Your task to perform on an android device: Play the last video I watched on Youtube Image 0: 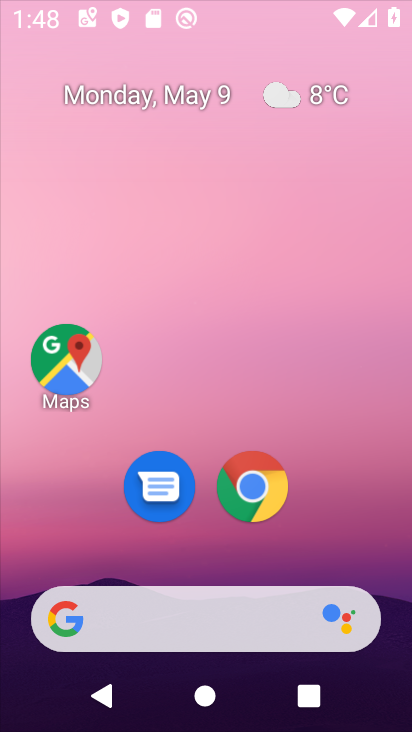
Step 0: click (293, 97)
Your task to perform on an android device: Play the last video I watched on Youtube Image 1: 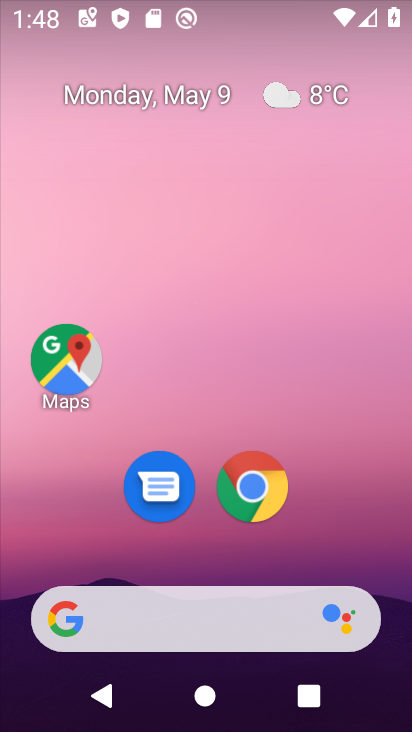
Step 1: drag from (328, 498) to (351, 170)
Your task to perform on an android device: Play the last video I watched on Youtube Image 2: 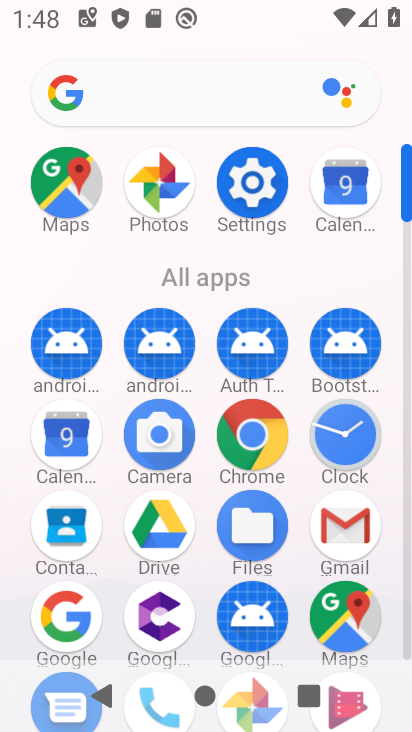
Step 2: drag from (191, 646) to (328, 266)
Your task to perform on an android device: Play the last video I watched on Youtube Image 3: 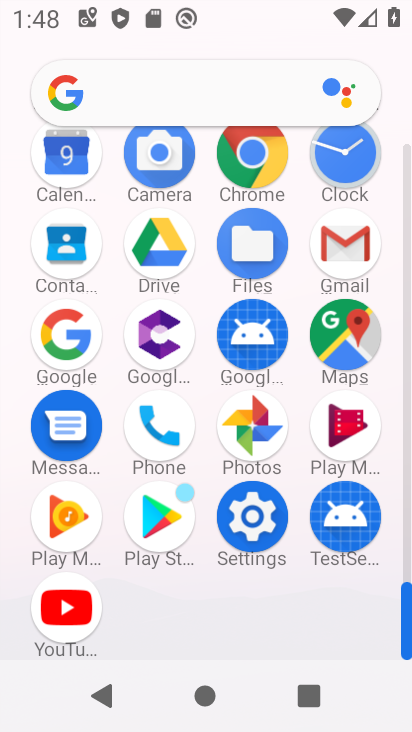
Step 3: click (39, 606)
Your task to perform on an android device: Play the last video I watched on Youtube Image 4: 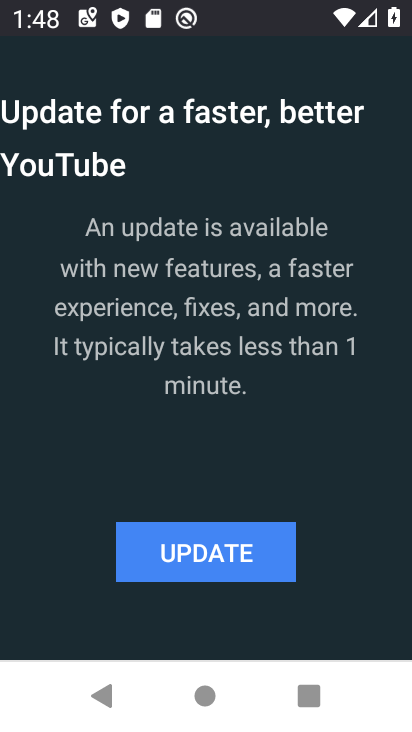
Step 4: click (141, 542)
Your task to perform on an android device: Play the last video I watched on Youtube Image 5: 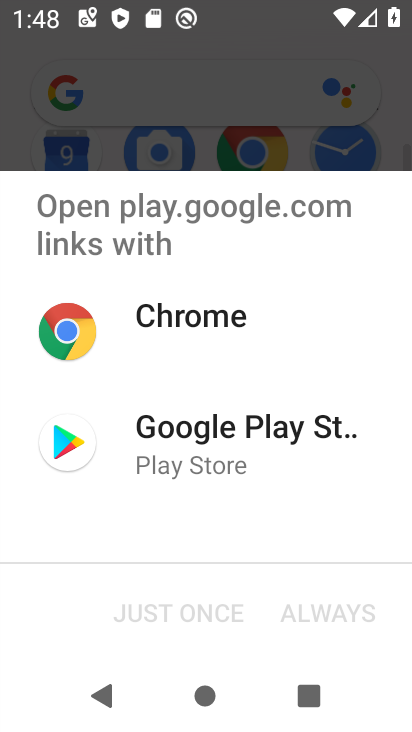
Step 5: click (151, 485)
Your task to perform on an android device: Play the last video I watched on Youtube Image 6: 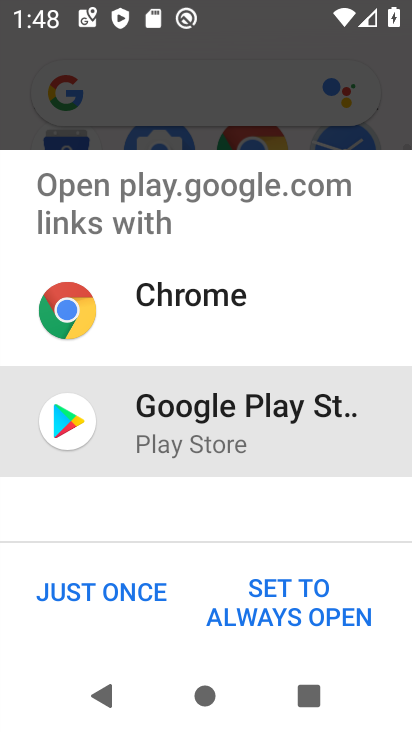
Step 6: click (100, 590)
Your task to perform on an android device: Play the last video I watched on Youtube Image 7: 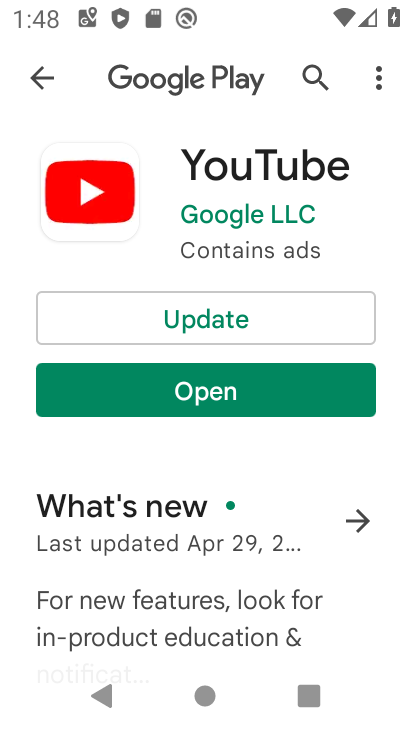
Step 7: click (190, 319)
Your task to perform on an android device: Play the last video I watched on Youtube Image 8: 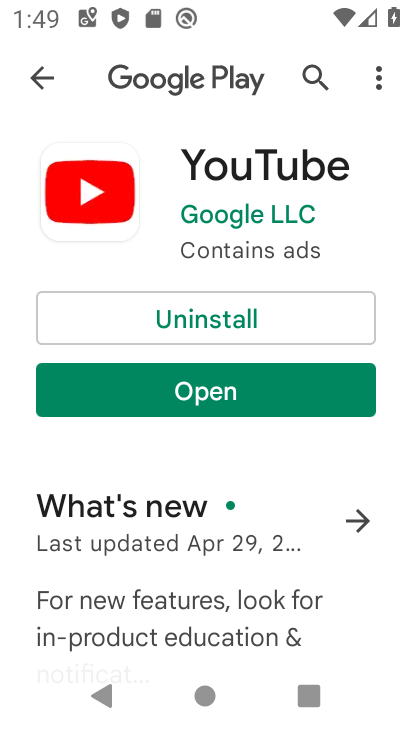
Step 8: click (336, 379)
Your task to perform on an android device: Play the last video I watched on Youtube Image 9: 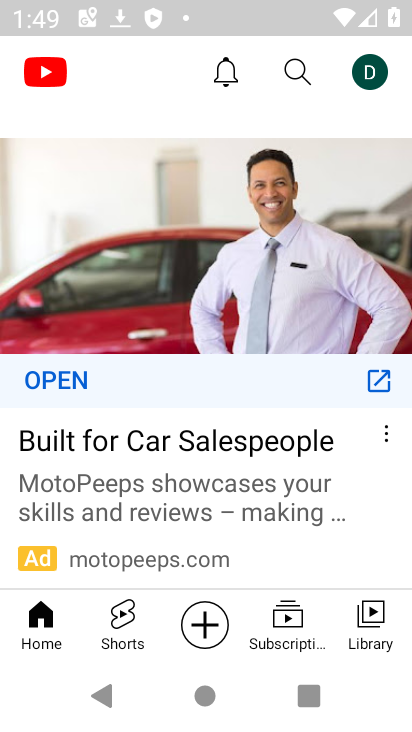
Step 9: click (383, 624)
Your task to perform on an android device: Play the last video I watched on Youtube Image 10: 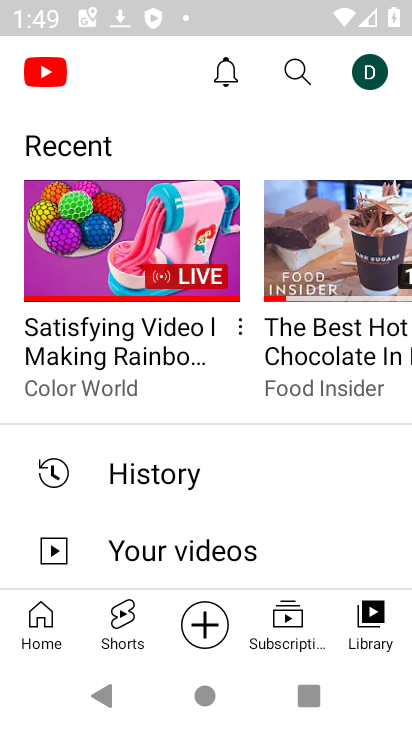
Step 10: drag from (363, 273) to (0, 231)
Your task to perform on an android device: Play the last video I watched on Youtube Image 11: 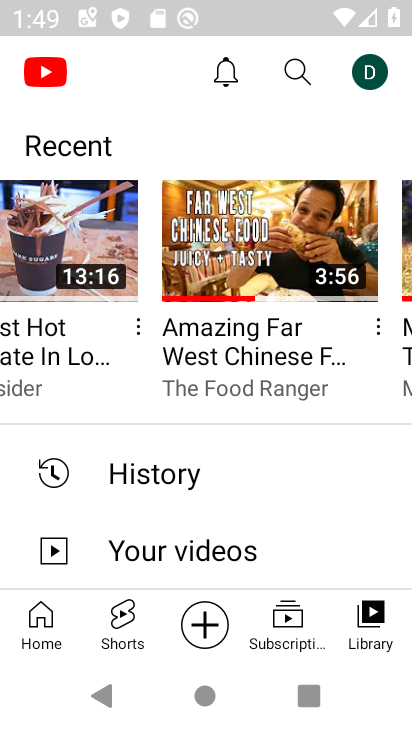
Step 11: drag from (64, 235) to (411, 332)
Your task to perform on an android device: Play the last video I watched on Youtube Image 12: 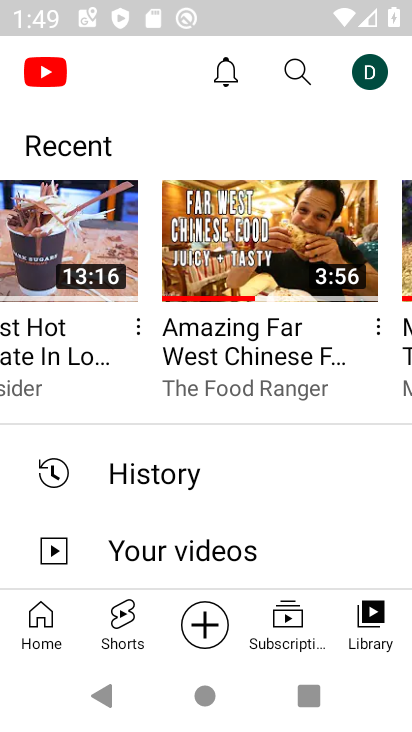
Step 12: drag from (153, 268) to (403, 317)
Your task to perform on an android device: Play the last video I watched on Youtube Image 13: 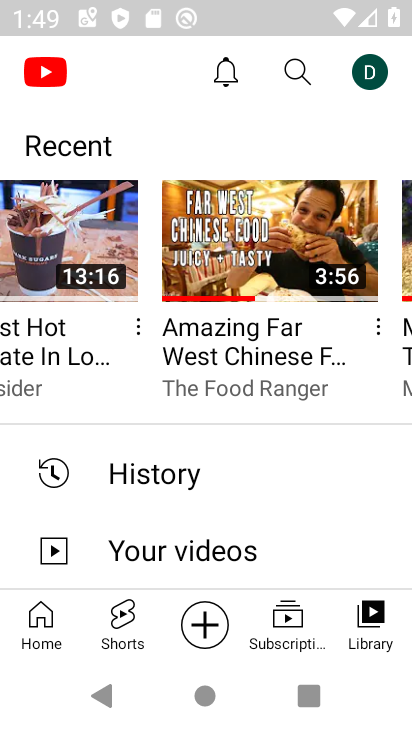
Step 13: drag from (102, 240) to (308, 239)
Your task to perform on an android device: Play the last video I watched on Youtube Image 14: 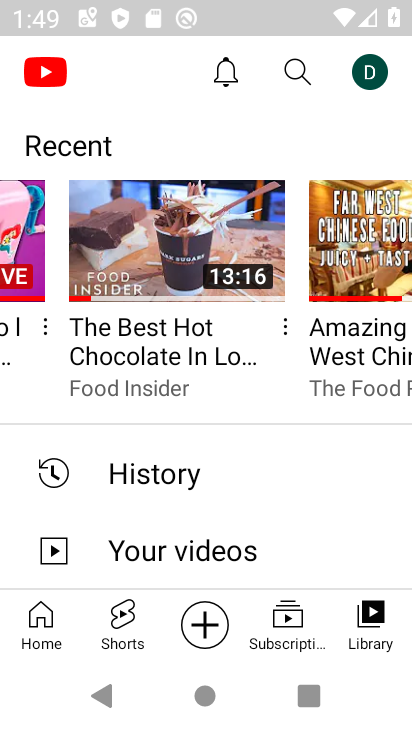
Step 14: drag from (86, 207) to (346, 267)
Your task to perform on an android device: Play the last video I watched on Youtube Image 15: 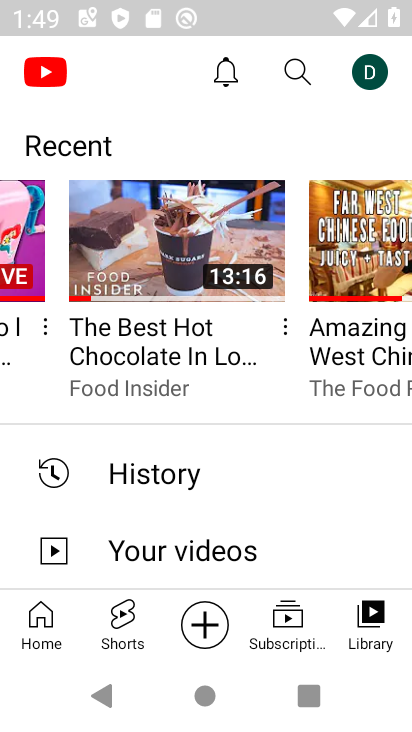
Step 15: click (14, 196)
Your task to perform on an android device: Play the last video I watched on Youtube Image 16: 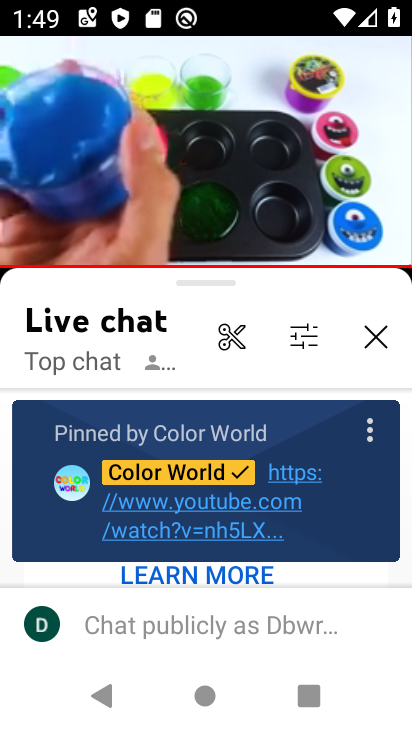
Step 16: task complete